Your task to perform on an android device: turn off priority inbox in the gmail app Image 0: 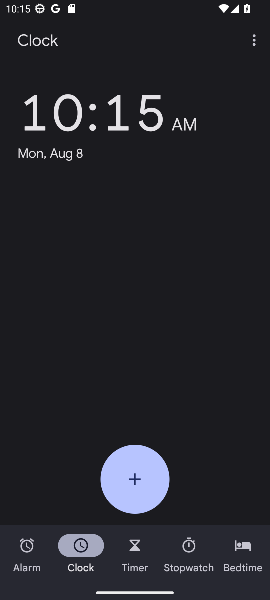
Step 0: press home button
Your task to perform on an android device: turn off priority inbox in the gmail app Image 1: 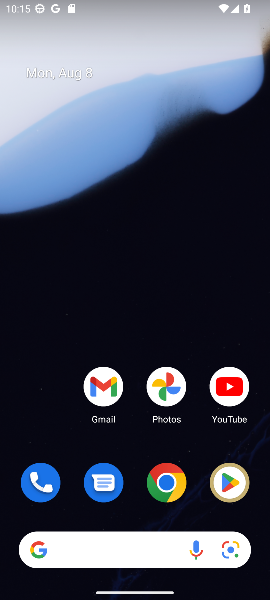
Step 1: click (96, 395)
Your task to perform on an android device: turn off priority inbox in the gmail app Image 2: 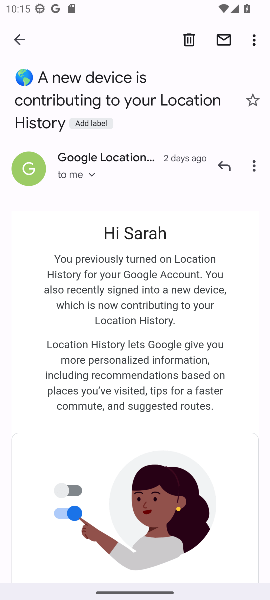
Step 2: click (11, 33)
Your task to perform on an android device: turn off priority inbox in the gmail app Image 3: 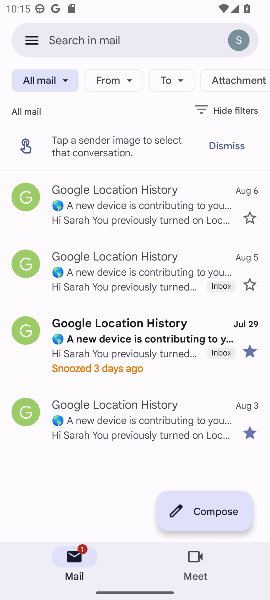
Step 3: click (28, 39)
Your task to perform on an android device: turn off priority inbox in the gmail app Image 4: 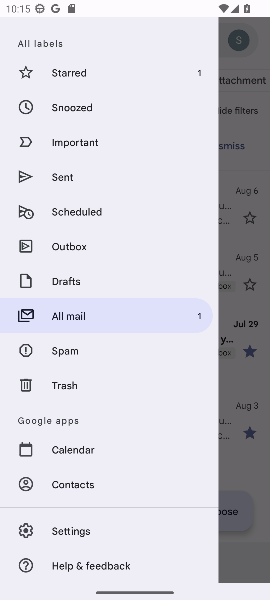
Step 4: click (74, 535)
Your task to perform on an android device: turn off priority inbox in the gmail app Image 5: 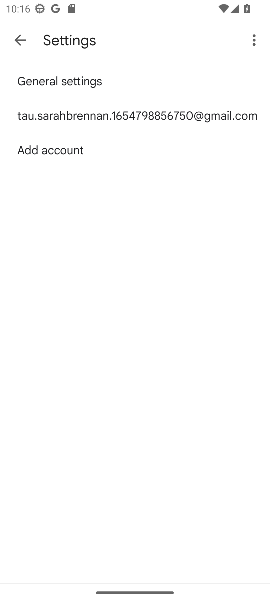
Step 5: click (153, 126)
Your task to perform on an android device: turn off priority inbox in the gmail app Image 6: 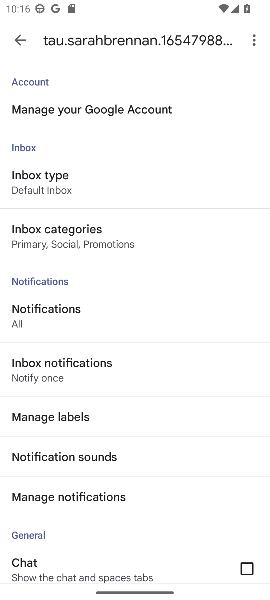
Step 6: click (54, 180)
Your task to perform on an android device: turn off priority inbox in the gmail app Image 7: 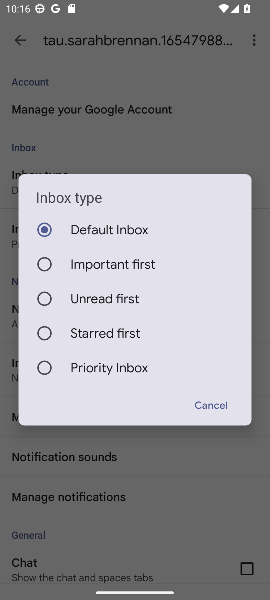
Step 7: click (83, 224)
Your task to perform on an android device: turn off priority inbox in the gmail app Image 8: 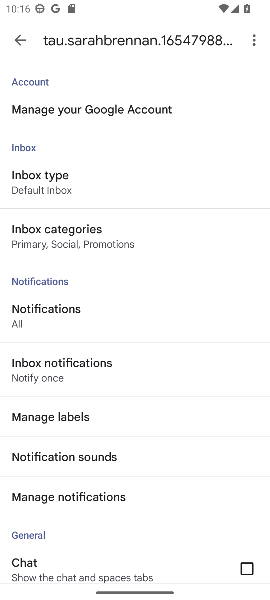
Step 8: task complete